Your task to perform on an android device: Do I have any events this weekend? Image 0: 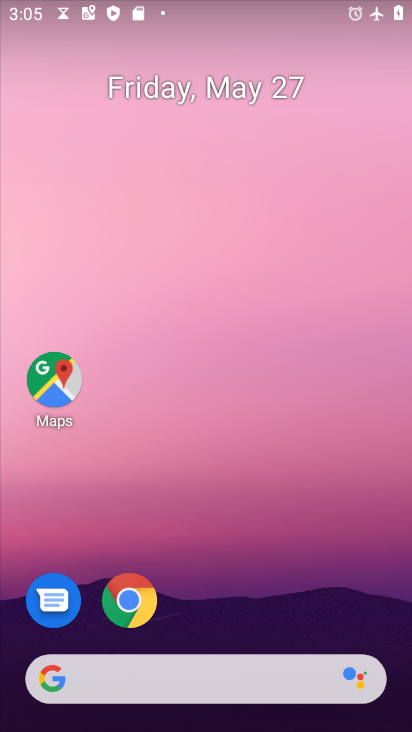
Step 0: drag from (271, 533) to (164, 17)
Your task to perform on an android device: Do I have any events this weekend? Image 1: 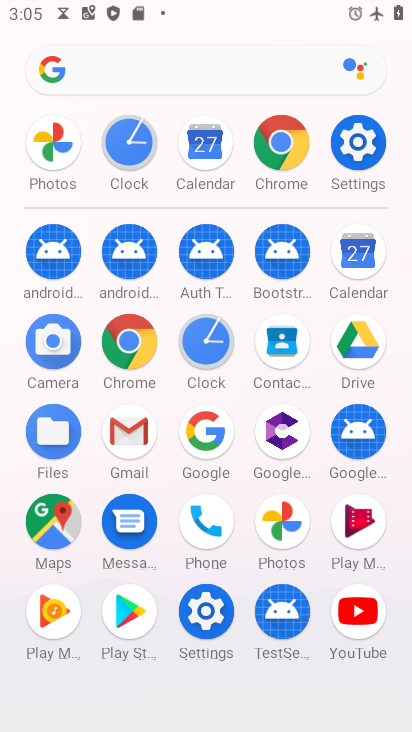
Step 1: drag from (9, 564) to (9, 176)
Your task to perform on an android device: Do I have any events this weekend? Image 2: 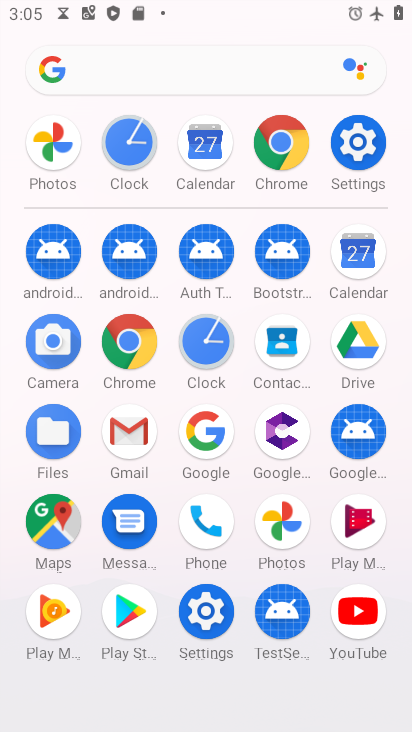
Step 2: drag from (1, 569) to (11, 235)
Your task to perform on an android device: Do I have any events this weekend? Image 3: 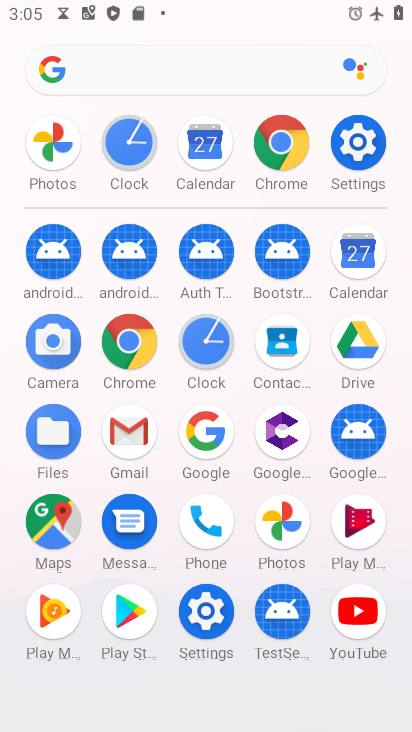
Step 3: click (352, 253)
Your task to perform on an android device: Do I have any events this weekend? Image 4: 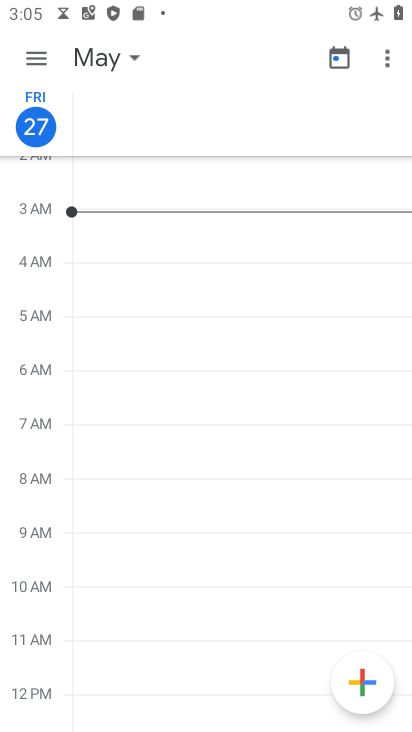
Step 4: click (97, 44)
Your task to perform on an android device: Do I have any events this weekend? Image 5: 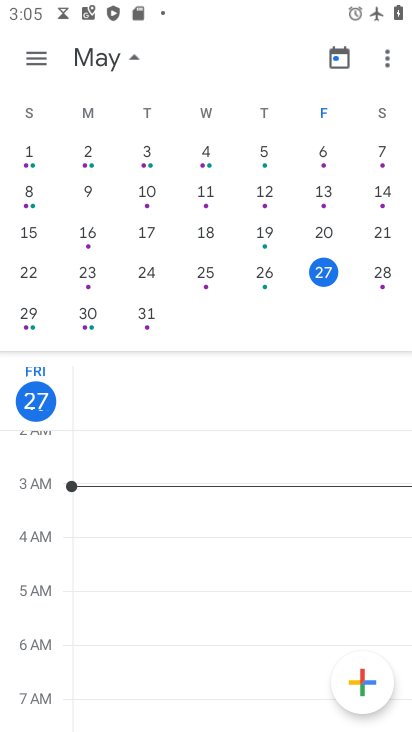
Step 5: drag from (392, 215) to (2, 194)
Your task to perform on an android device: Do I have any events this weekend? Image 6: 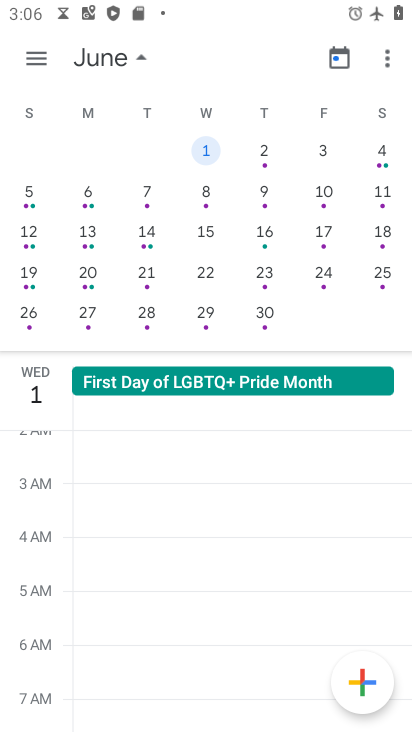
Step 6: click (337, 50)
Your task to perform on an android device: Do I have any events this weekend? Image 7: 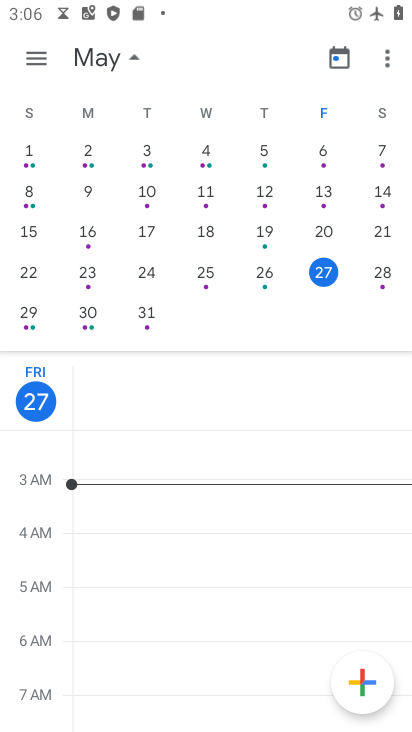
Step 7: click (26, 50)
Your task to perform on an android device: Do I have any events this weekend? Image 8: 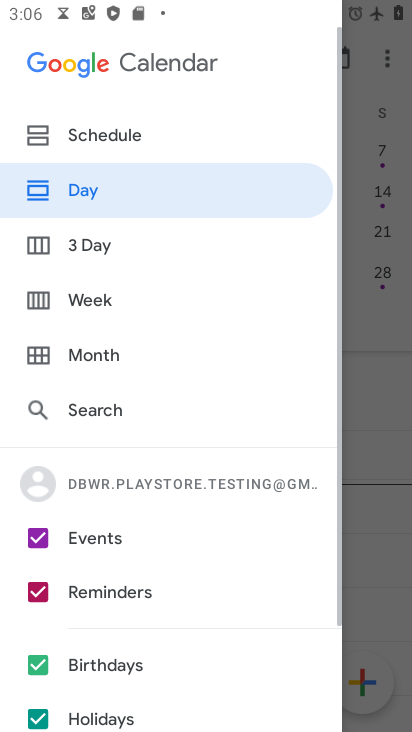
Step 8: click (91, 302)
Your task to perform on an android device: Do I have any events this weekend? Image 9: 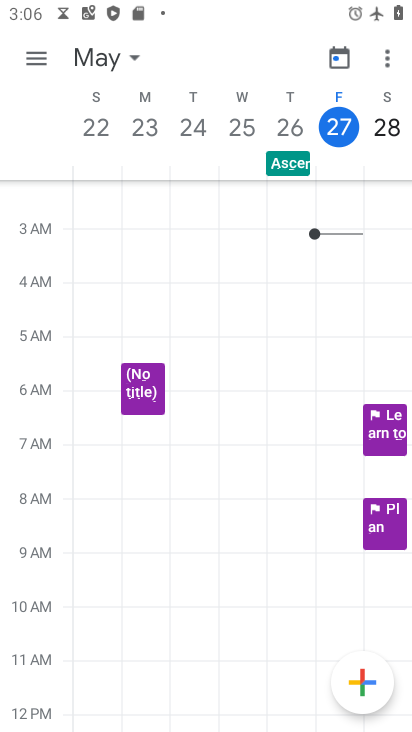
Step 9: task complete